Your task to perform on an android device: turn on the 12-hour format for clock Image 0: 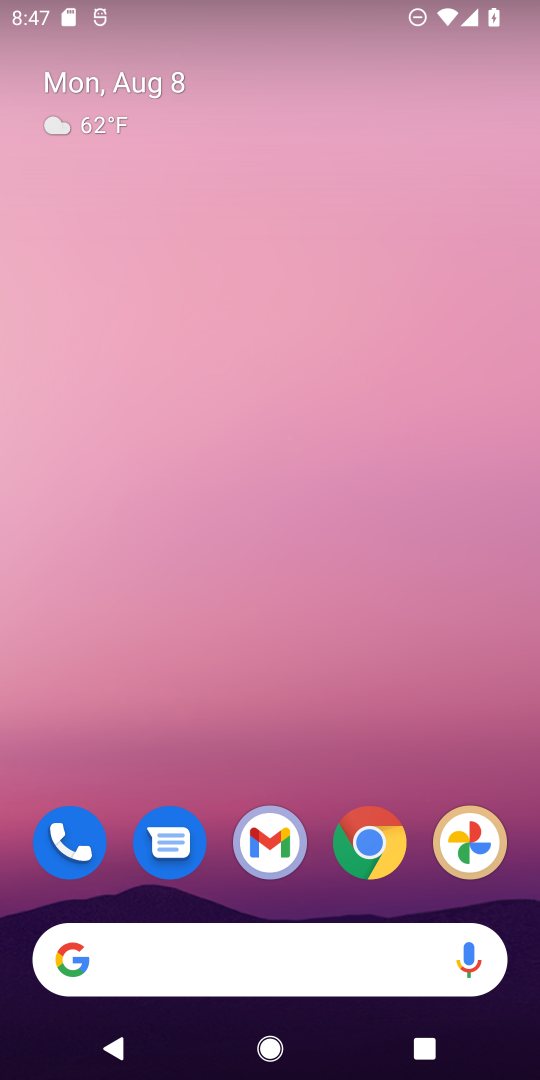
Step 0: drag from (288, 745) to (362, 26)
Your task to perform on an android device: turn on the 12-hour format for clock Image 1: 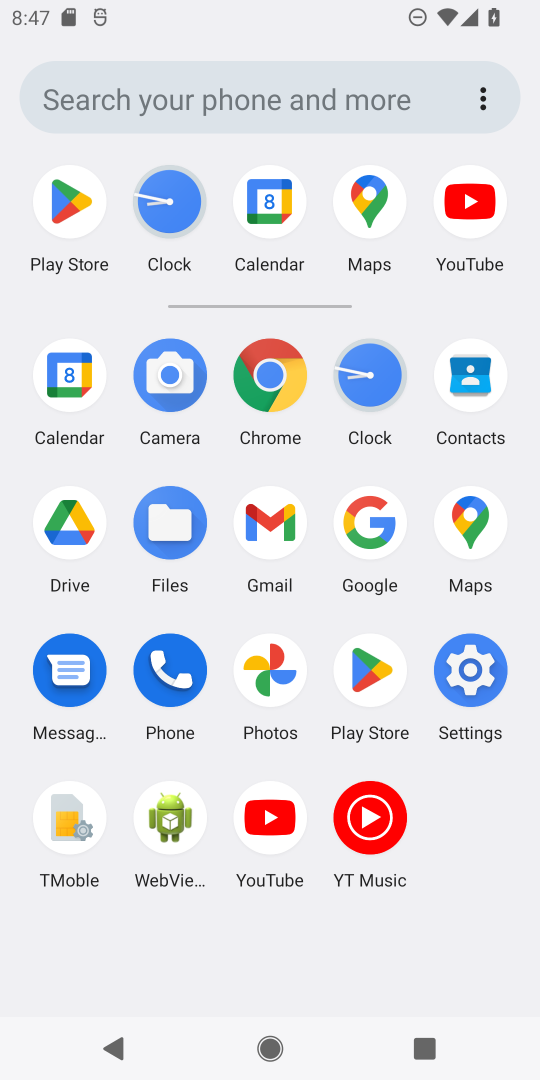
Step 1: click (182, 206)
Your task to perform on an android device: turn on the 12-hour format for clock Image 2: 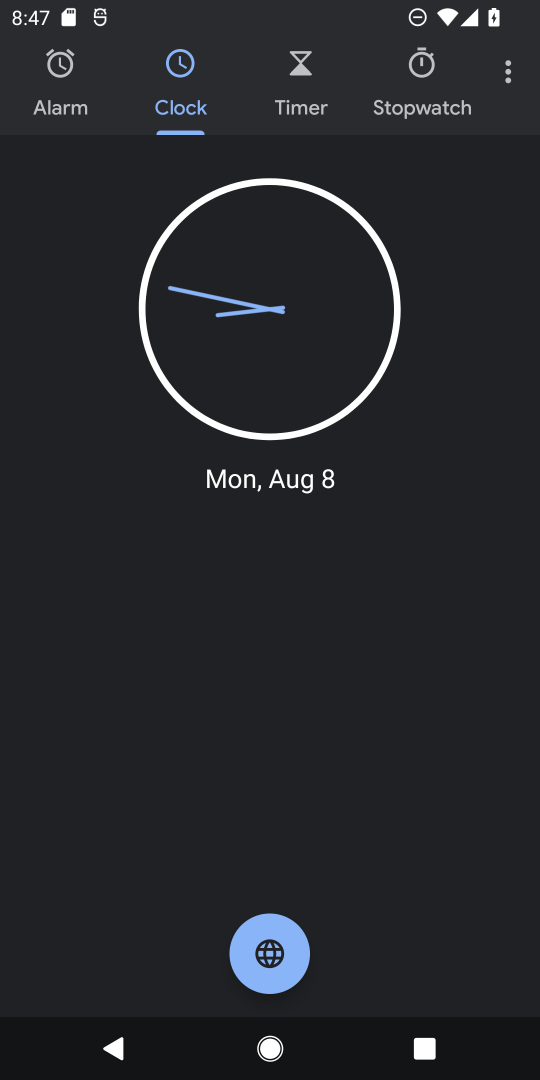
Step 2: click (509, 79)
Your task to perform on an android device: turn on the 12-hour format for clock Image 3: 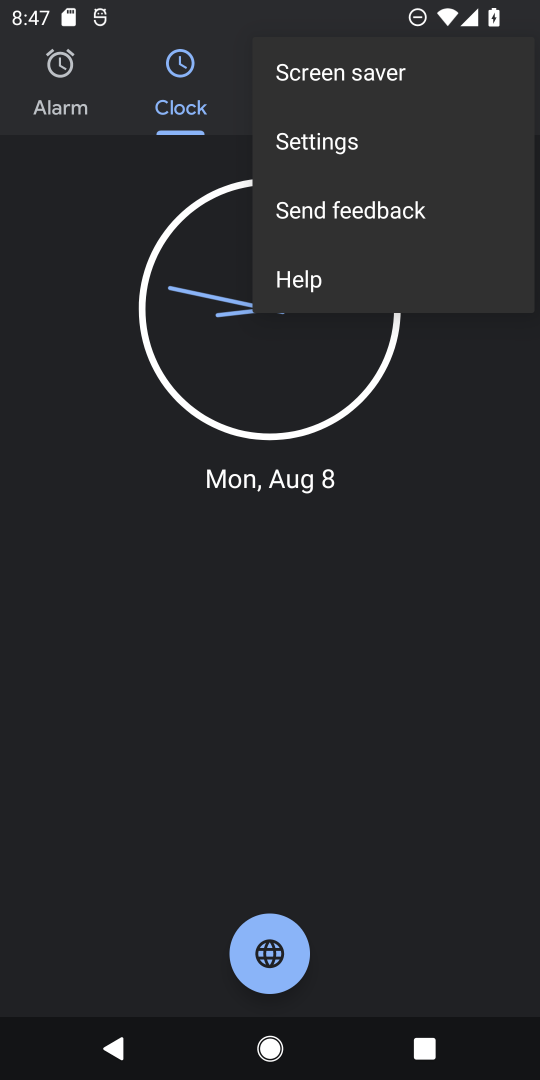
Step 3: click (371, 136)
Your task to perform on an android device: turn on the 12-hour format for clock Image 4: 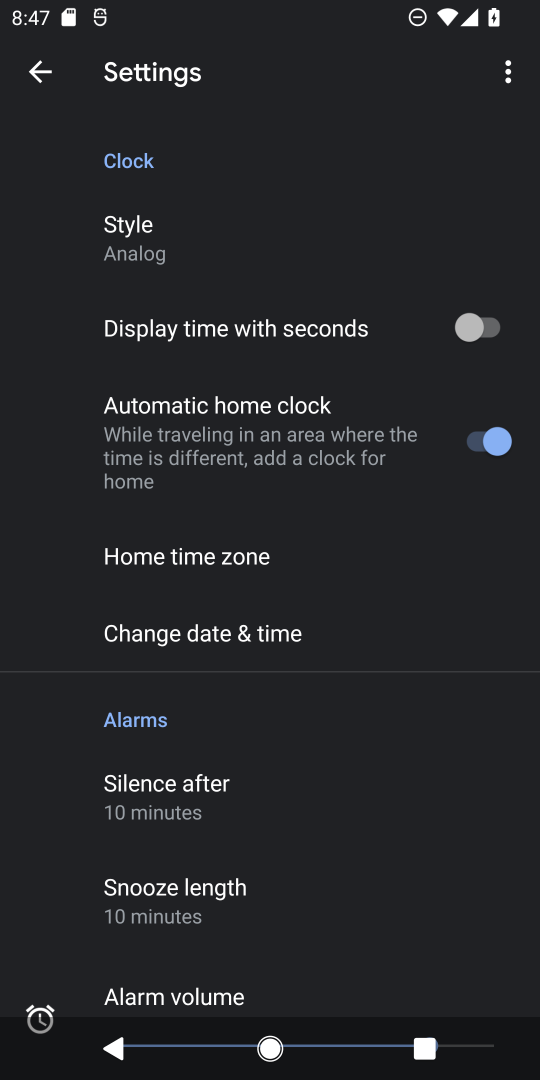
Step 4: click (273, 636)
Your task to perform on an android device: turn on the 12-hour format for clock Image 5: 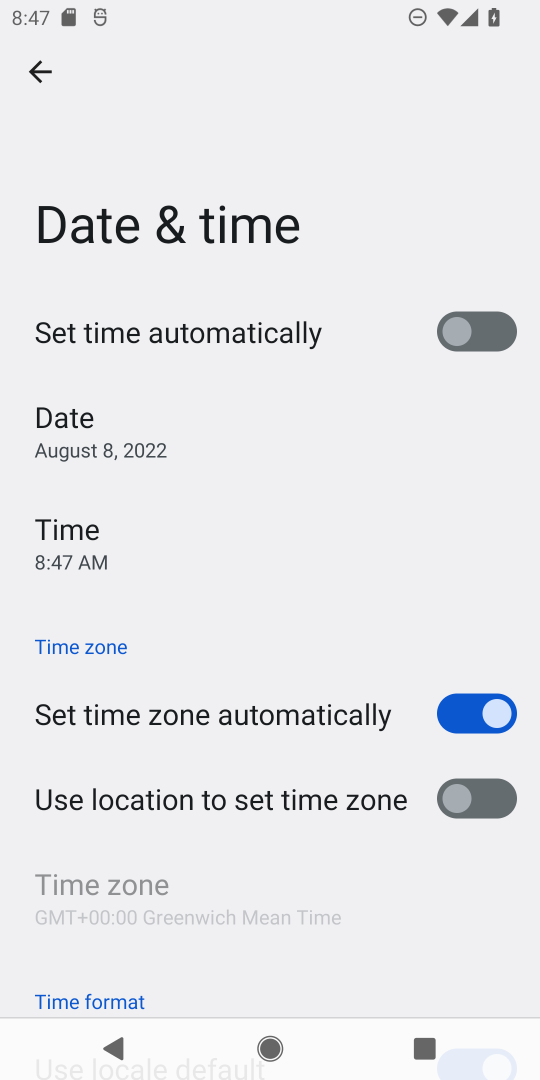
Step 5: task complete